Your task to perform on an android device: Go to Maps Image 0: 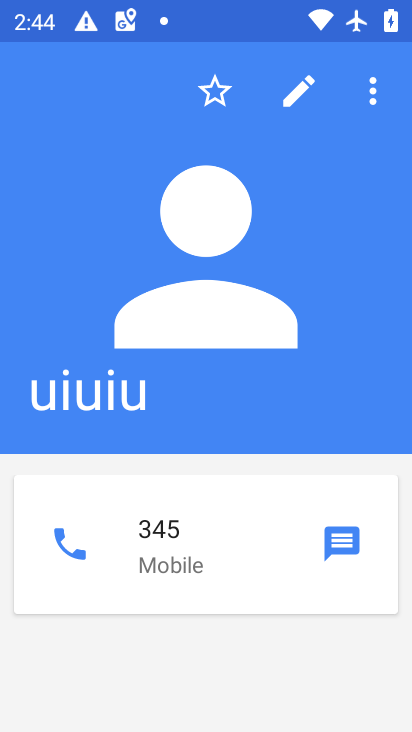
Step 0: press home button
Your task to perform on an android device: Go to Maps Image 1: 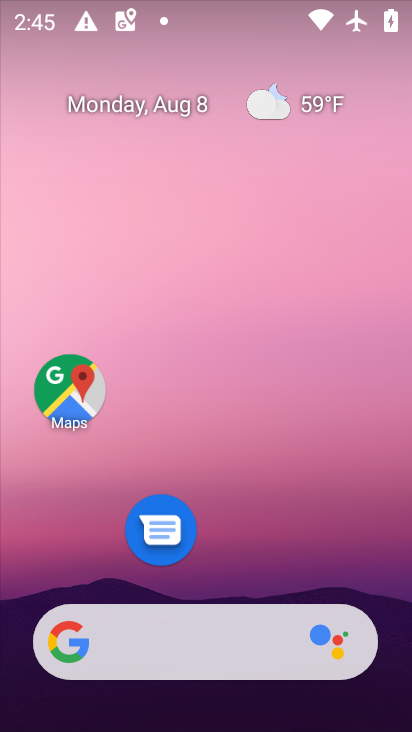
Step 1: drag from (204, 585) to (204, 7)
Your task to perform on an android device: Go to Maps Image 2: 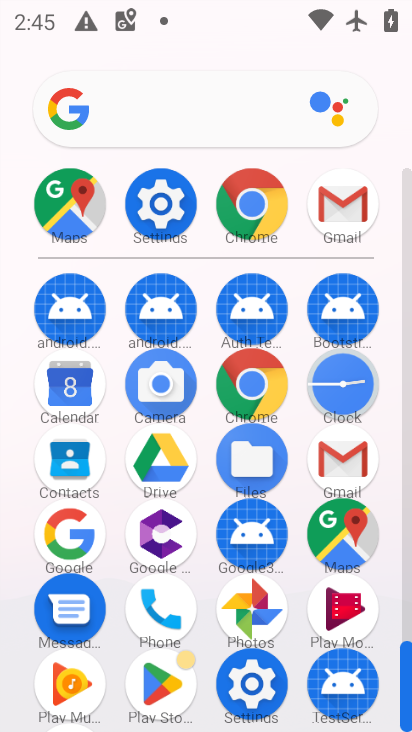
Step 2: click (344, 530)
Your task to perform on an android device: Go to Maps Image 3: 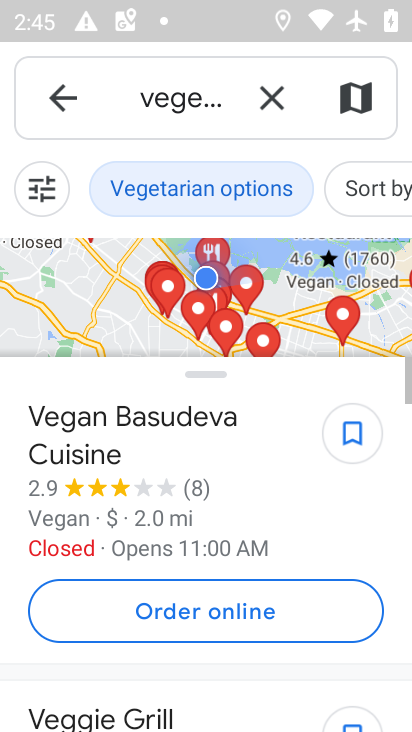
Step 3: task complete